Your task to perform on an android device: Show me popular videos on Youtube Image 0: 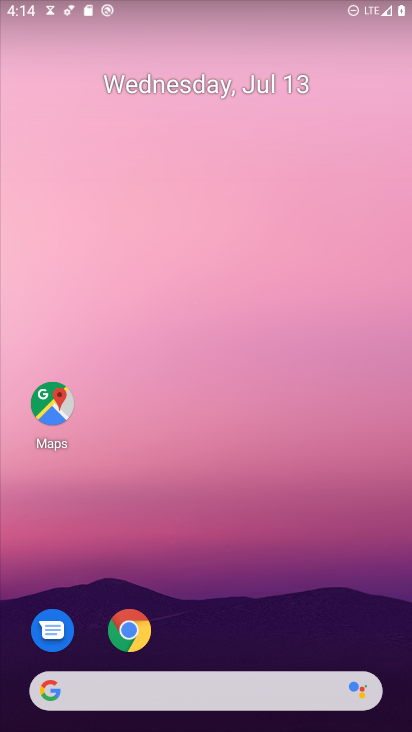
Step 0: press home button
Your task to perform on an android device: Show me popular videos on Youtube Image 1: 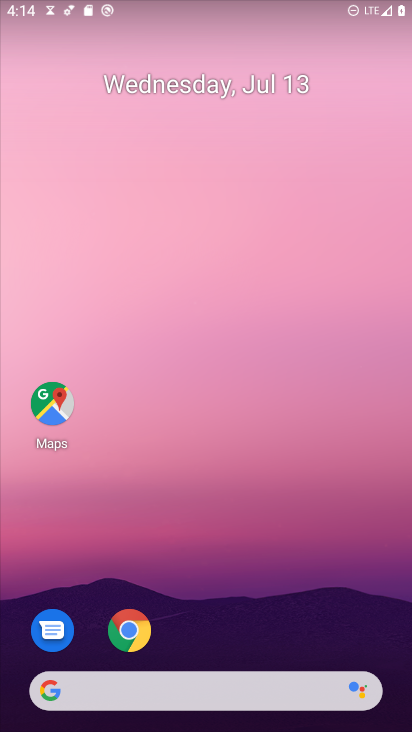
Step 1: drag from (260, 645) to (265, 57)
Your task to perform on an android device: Show me popular videos on Youtube Image 2: 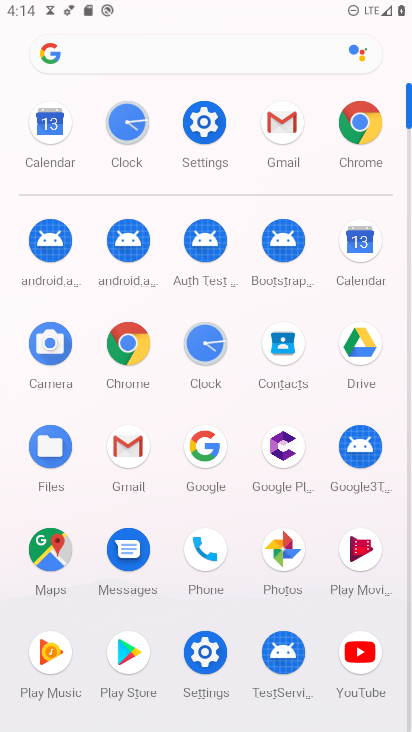
Step 2: click (351, 659)
Your task to perform on an android device: Show me popular videos on Youtube Image 3: 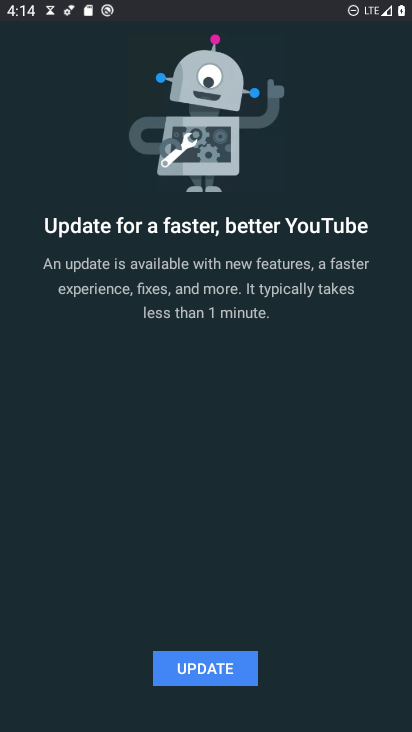
Step 3: click (213, 671)
Your task to perform on an android device: Show me popular videos on Youtube Image 4: 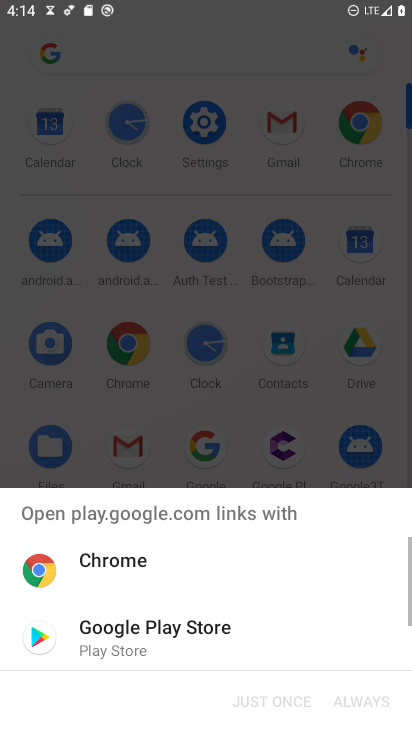
Step 4: click (184, 640)
Your task to perform on an android device: Show me popular videos on Youtube Image 5: 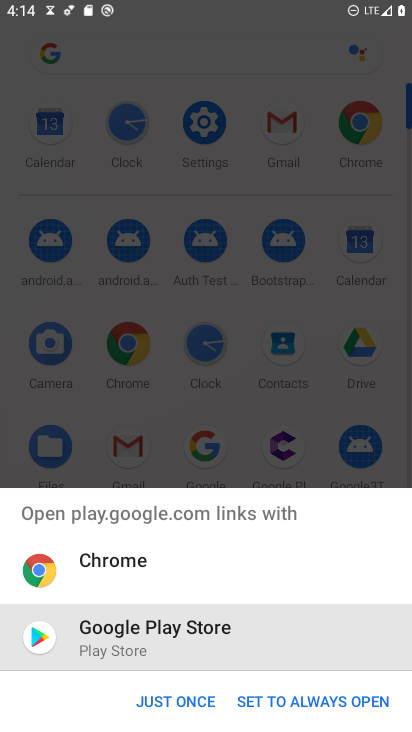
Step 5: click (169, 710)
Your task to perform on an android device: Show me popular videos on Youtube Image 6: 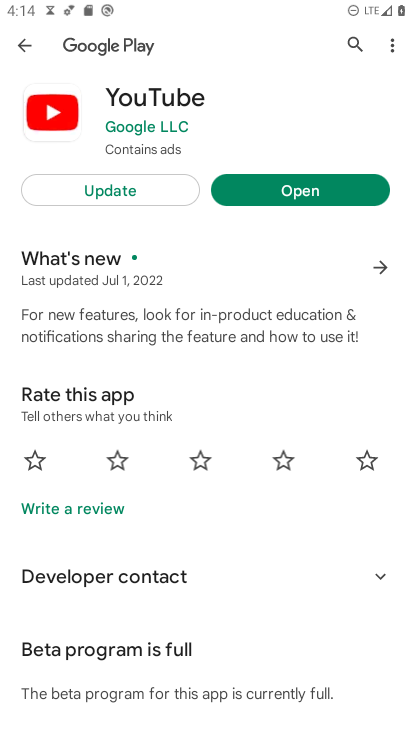
Step 6: click (130, 197)
Your task to perform on an android device: Show me popular videos on Youtube Image 7: 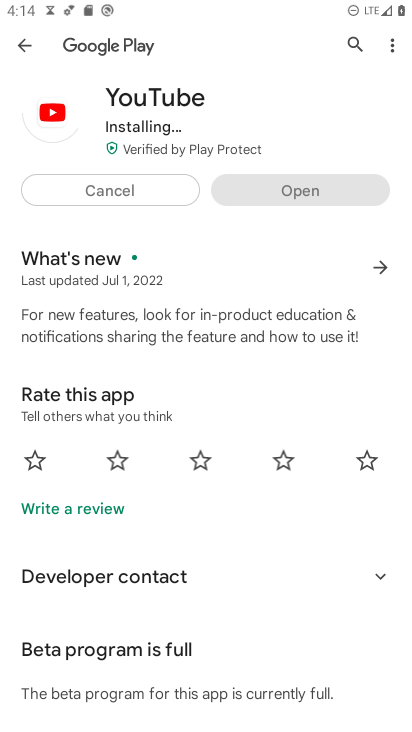
Step 7: click (248, 201)
Your task to perform on an android device: Show me popular videos on Youtube Image 8: 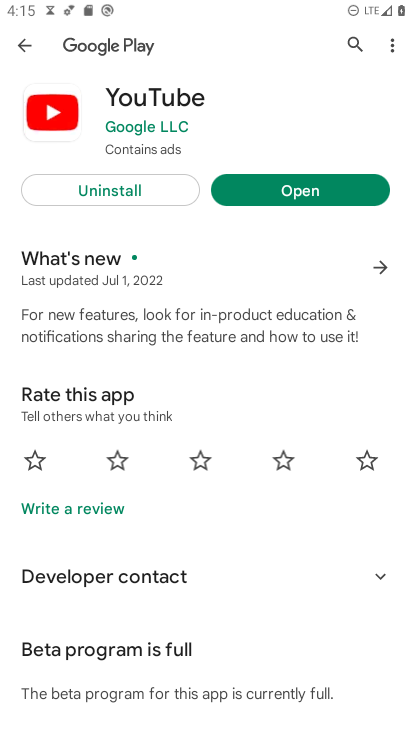
Step 8: click (249, 200)
Your task to perform on an android device: Show me popular videos on Youtube Image 9: 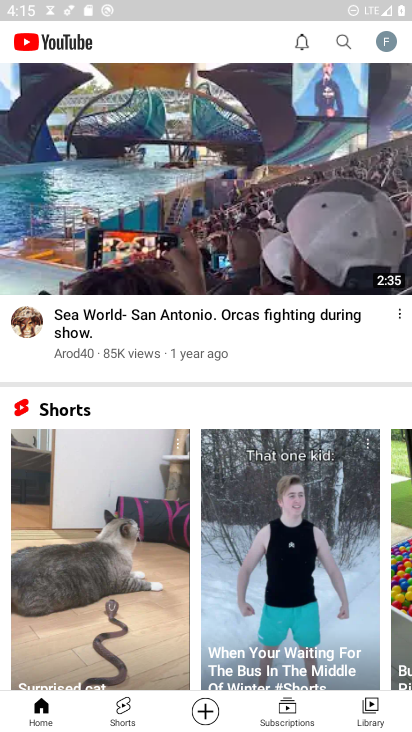
Step 9: drag from (187, 193) to (147, 670)
Your task to perform on an android device: Show me popular videos on Youtube Image 10: 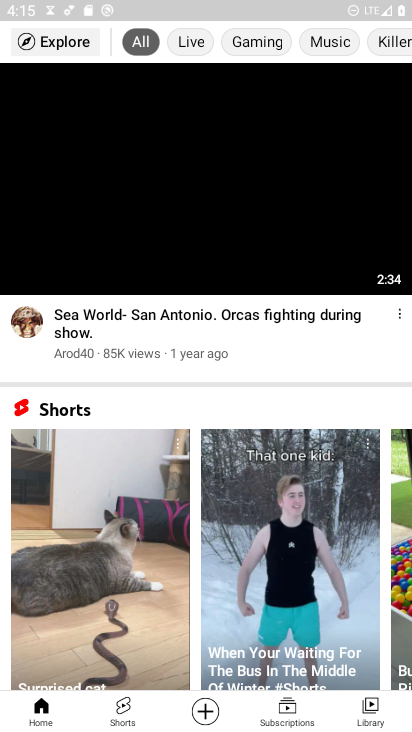
Step 10: click (63, 43)
Your task to perform on an android device: Show me popular videos on Youtube Image 11: 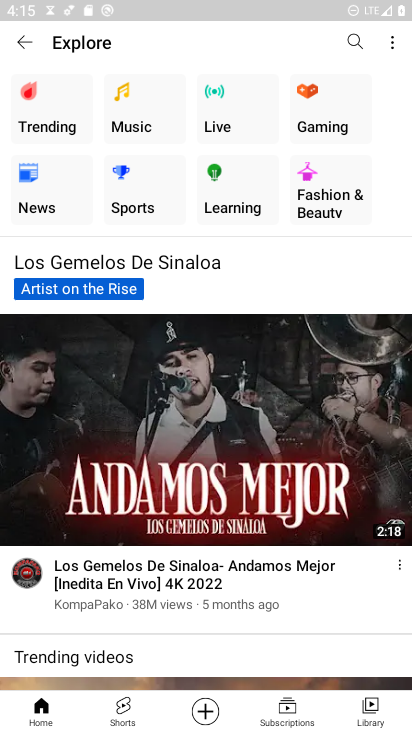
Step 11: click (49, 126)
Your task to perform on an android device: Show me popular videos on Youtube Image 12: 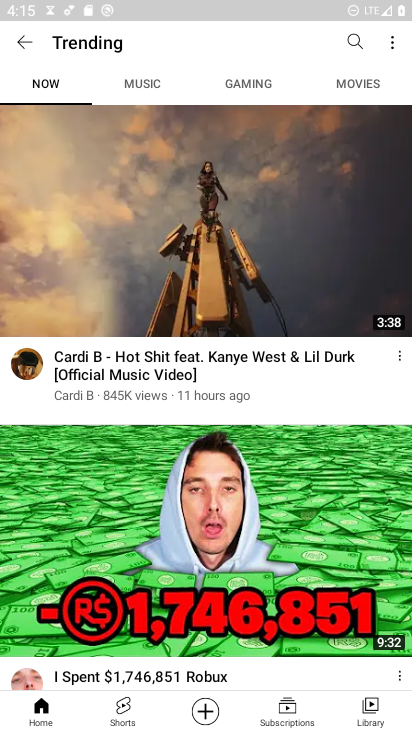
Step 12: task complete